Your task to perform on an android device: Open network settings Image 0: 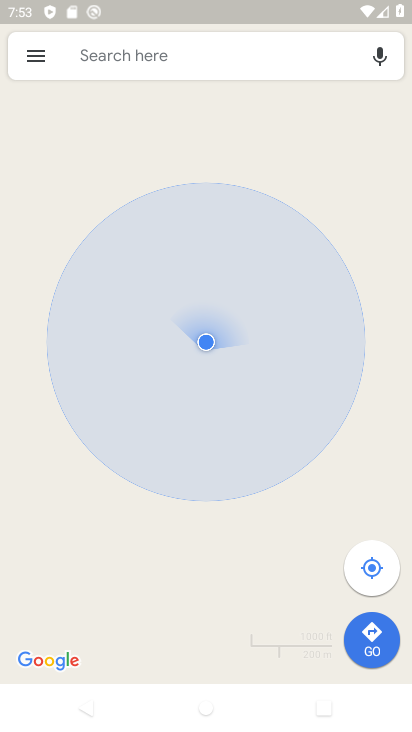
Step 0: press home button
Your task to perform on an android device: Open network settings Image 1: 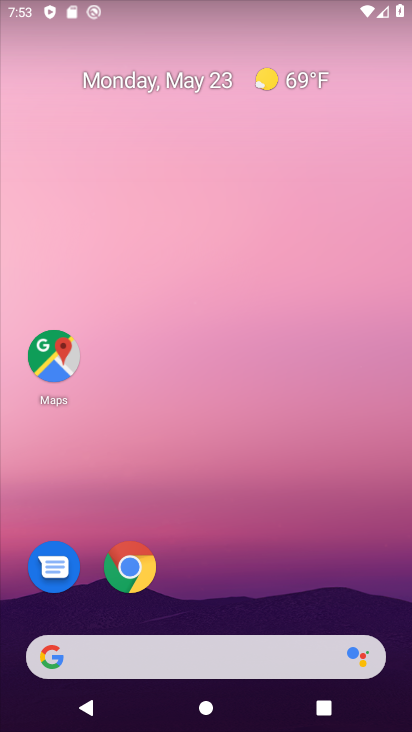
Step 1: drag from (209, 598) to (225, 97)
Your task to perform on an android device: Open network settings Image 2: 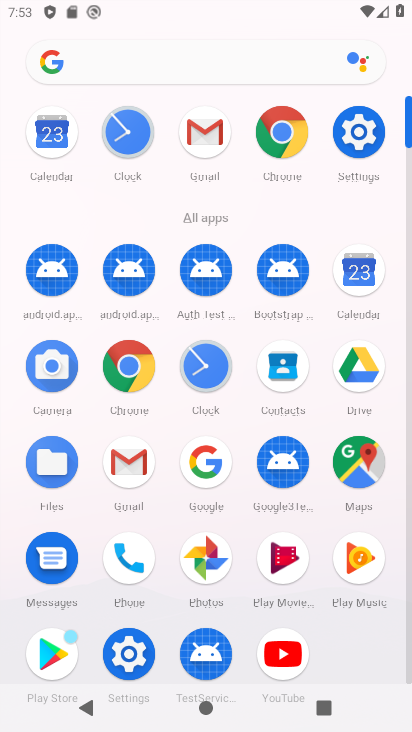
Step 2: click (350, 143)
Your task to perform on an android device: Open network settings Image 3: 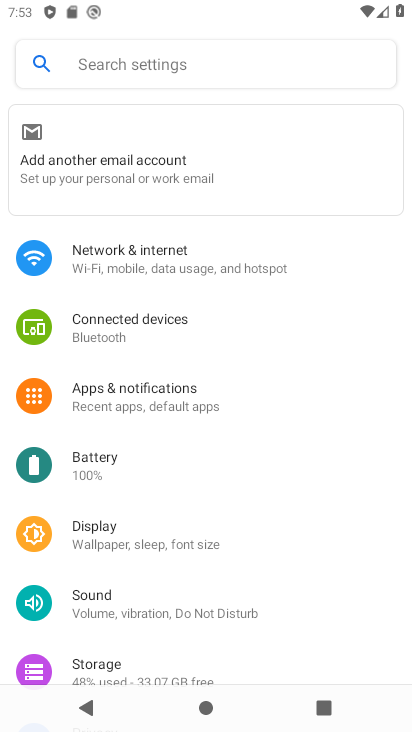
Step 3: click (176, 264)
Your task to perform on an android device: Open network settings Image 4: 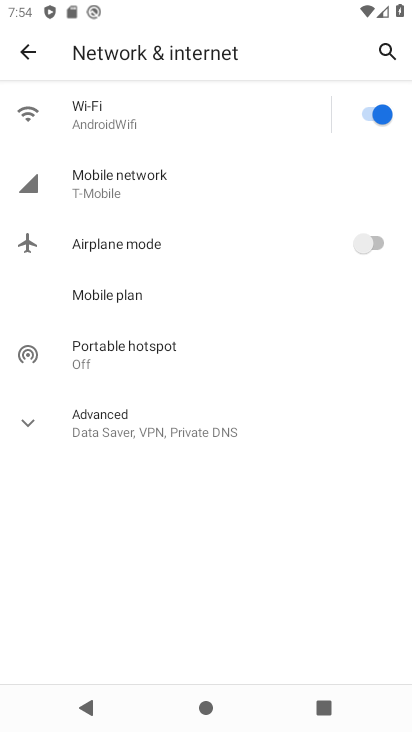
Step 4: click (159, 190)
Your task to perform on an android device: Open network settings Image 5: 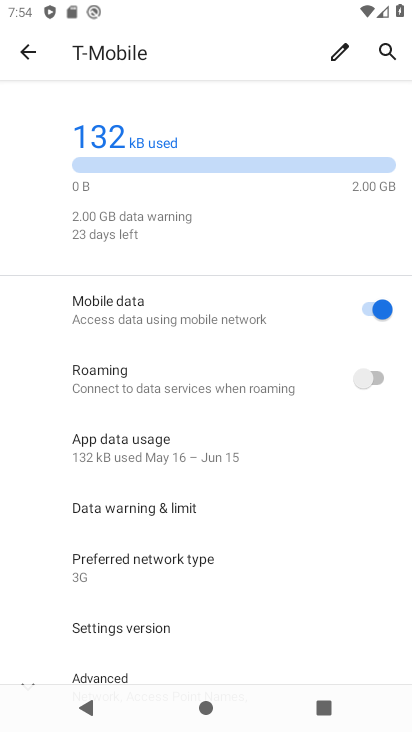
Step 5: task complete